Your task to perform on an android device: Is it going to rain today? Image 0: 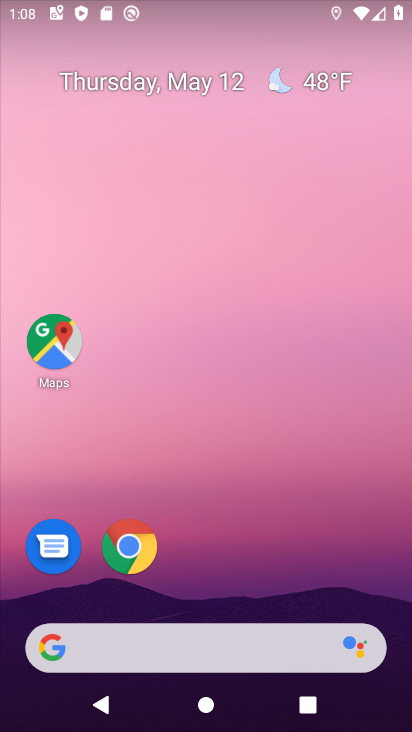
Step 0: click (317, 80)
Your task to perform on an android device: Is it going to rain today? Image 1: 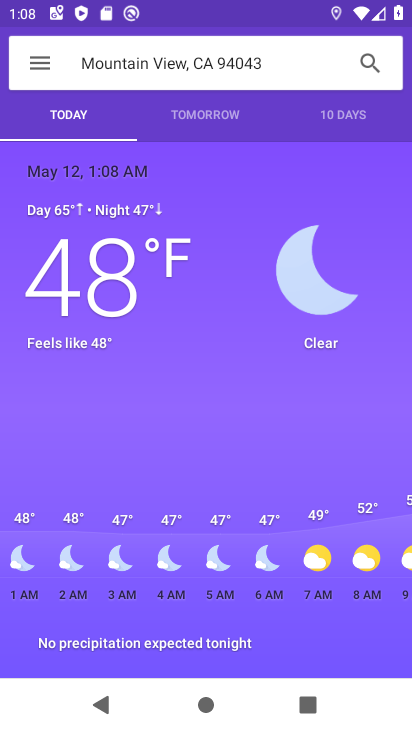
Step 1: task complete